Your task to perform on an android device: open a bookmark in the chrome app Image 0: 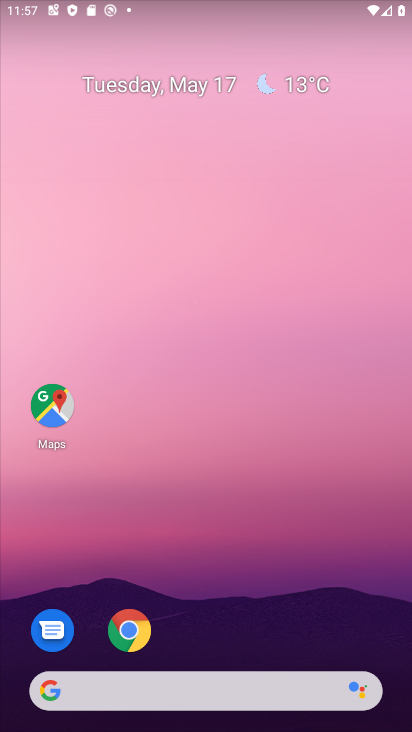
Step 0: click (129, 632)
Your task to perform on an android device: open a bookmark in the chrome app Image 1: 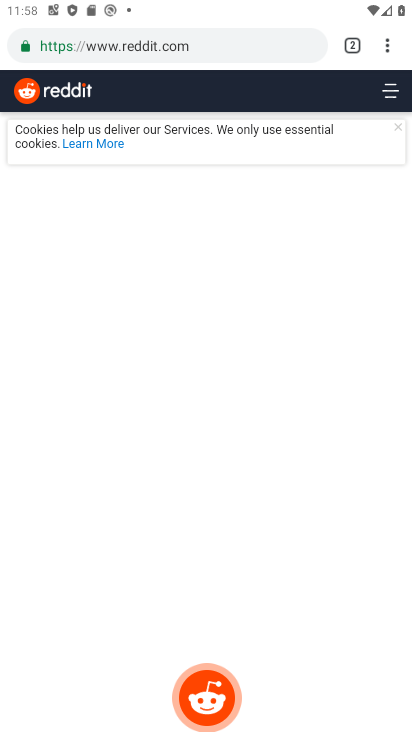
Step 1: click (387, 50)
Your task to perform on an android device: open a bookmark in the chrome app Image 2: 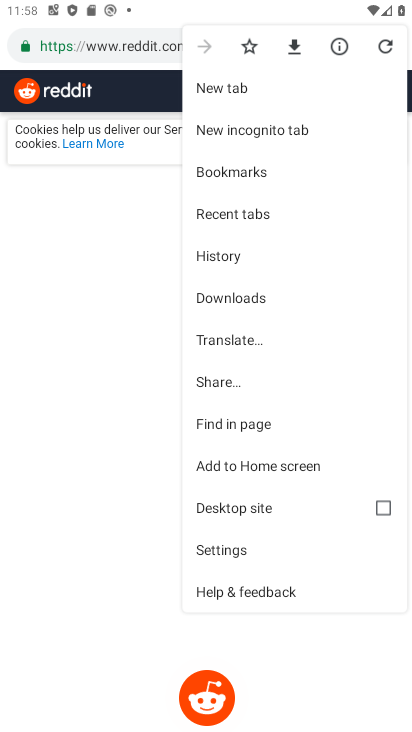
Step 2: click (227, 549)
Your task to perform on an android device: open a bookmark in the chrome app Image 3: 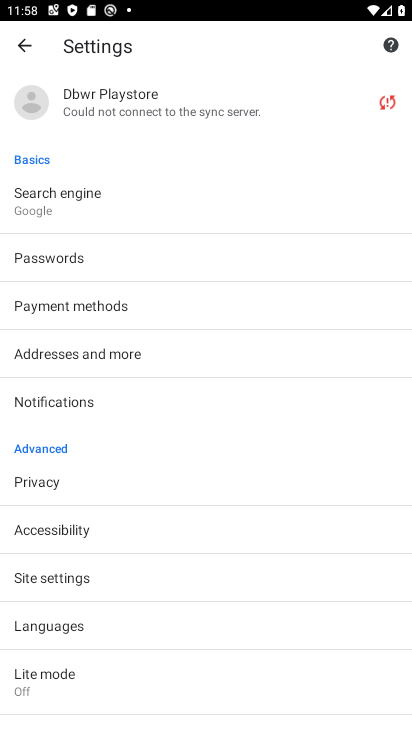
Step 3: click (27, 46)
Your task to perform on an android device: open a bookmark in the chrome app Image 4: 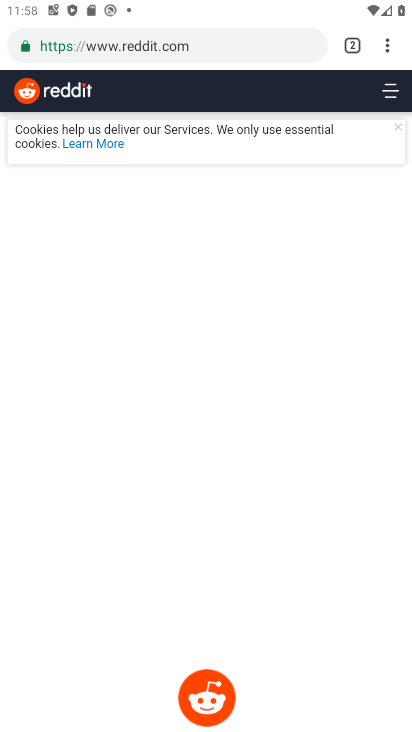
Step 4: click (390, 46)
Your task to perform on an android device: open a bookmark in the chrome app Image 5: 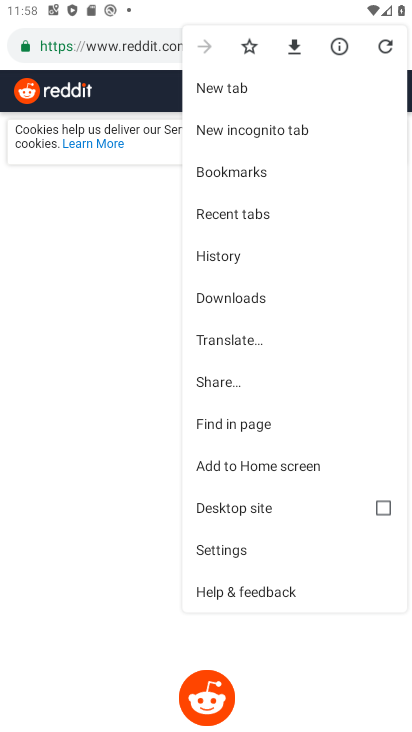
Step 5: click (237, 174)
Your task to perform on an android device: open a bookmark in the chrome app Image 6: 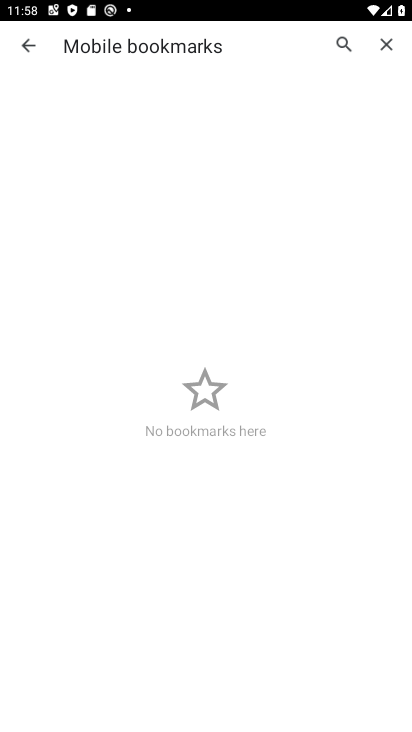
Step 6: task complete